Your task to perform on an android device: Open Android settings Image 0: 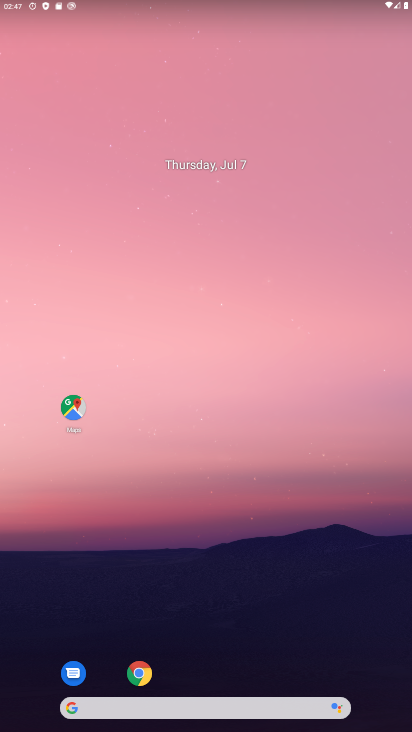
Step 0: drag from (178, 671) to (238, 206)
Your task to perform on an android device: Open Android settings Image 1: 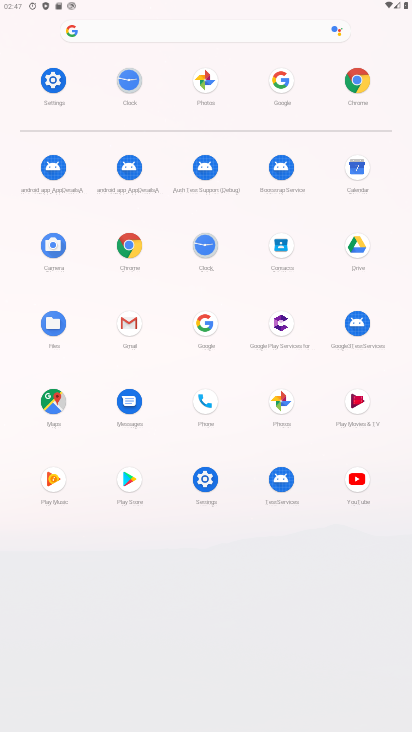
Step 1: click (54, 96)
Your task to perform on an android device: Open Android settings Image 2: 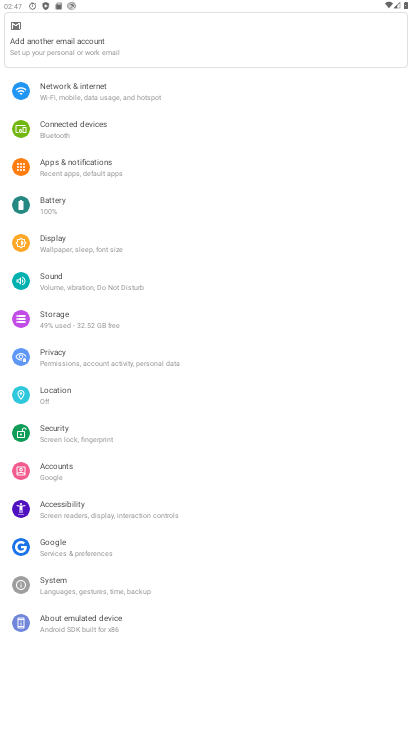
Step 2: task complete